Your task to perform on an android device: Open Yahoo.com Image 0: 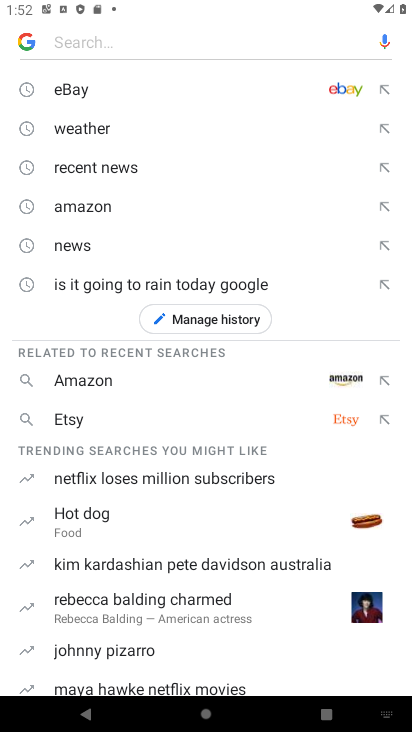
Step 0: press home button
Your task to perform on an android device: Open Yahoo.com Image 1: 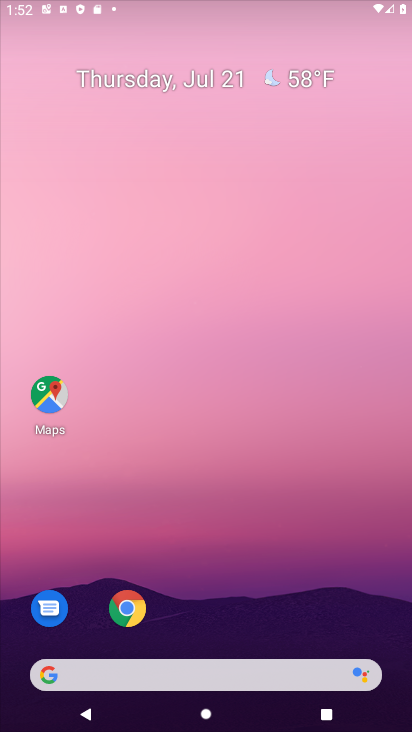
Step 1: drag from (389, 649) to (252, 49)
Your task to perform on an android device: Open Yahoo.com Image 2: 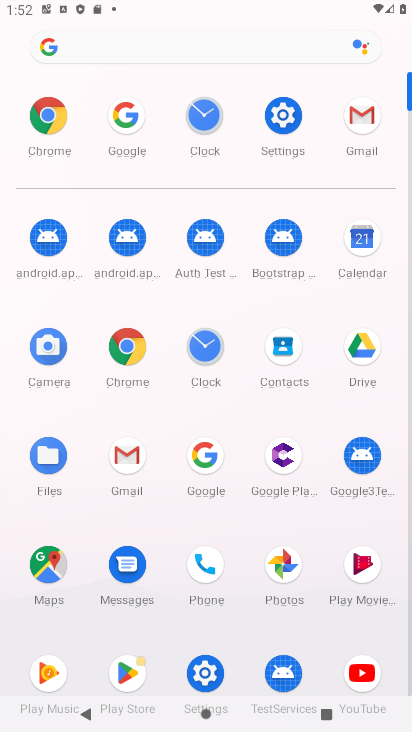
Step 2: click (211, 462)
Your task to perform on an android device: Open Yahoo.com Image 3: 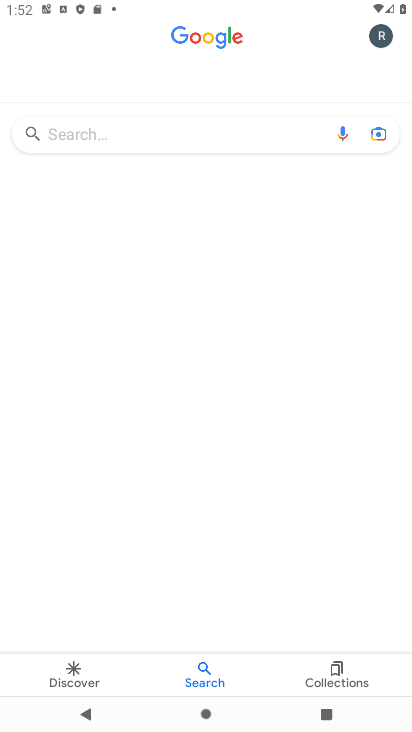
Step 3: click (101, 146)
Your task to perform on an android device: Open Yahoo.com Image 4: 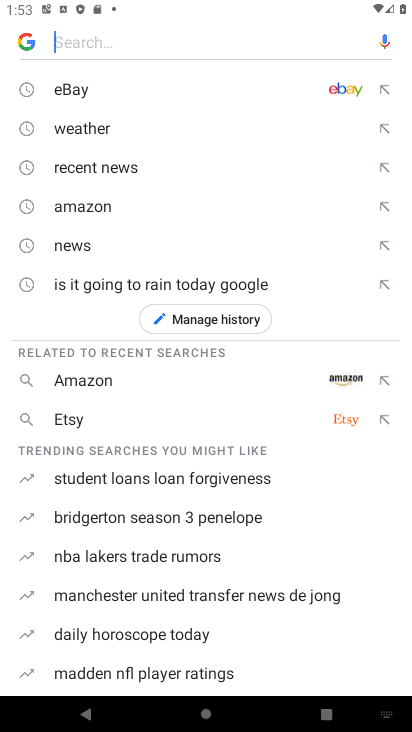
Step 4: type "Yahoo.com"
Your task to perform on an android device: Open Yahoo.com Image 5: 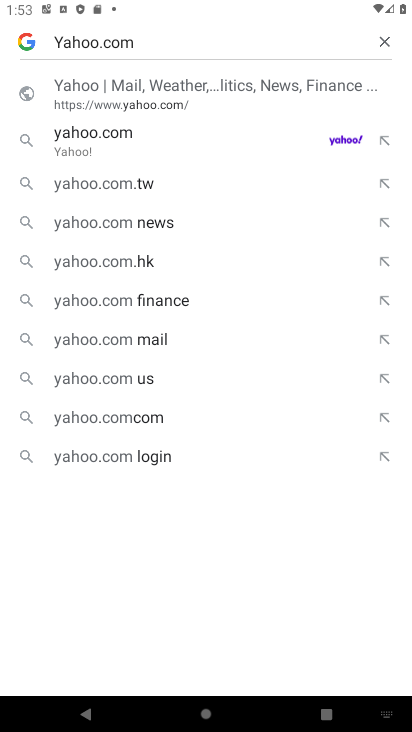
Step 5: click (68, 146)
Your task to perform on an android device: Open Yahoo.com Image 6: 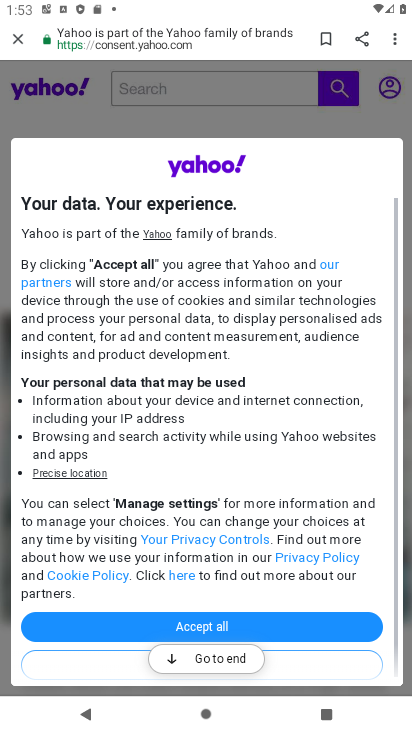
Step 6: task complete